Your task to perform on an android device: turn on data saver in the chrome app Image 0: 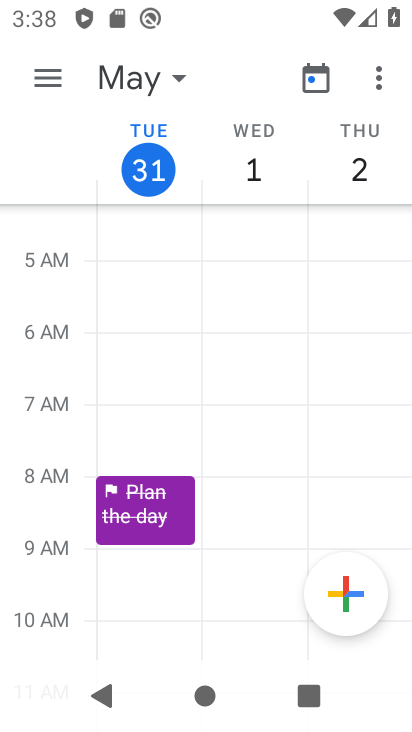
Step 0: press home button
Your task to perform on an android device: turn on data saver in the chrome app Image 1: 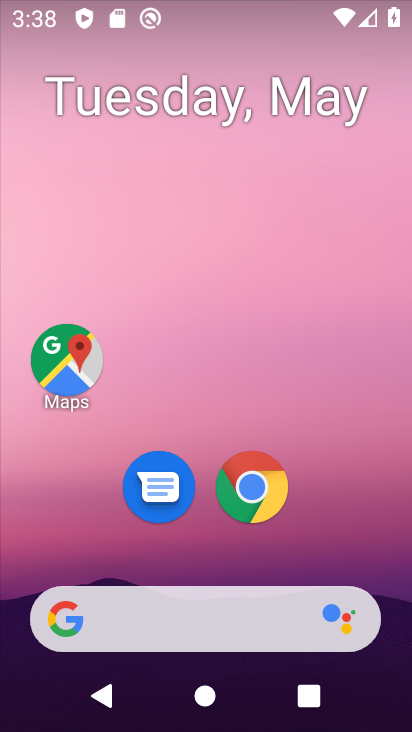
Step 1: click (261, 496)
Your task to perform on an android device: turn on data saver in the chrome app Image 2: 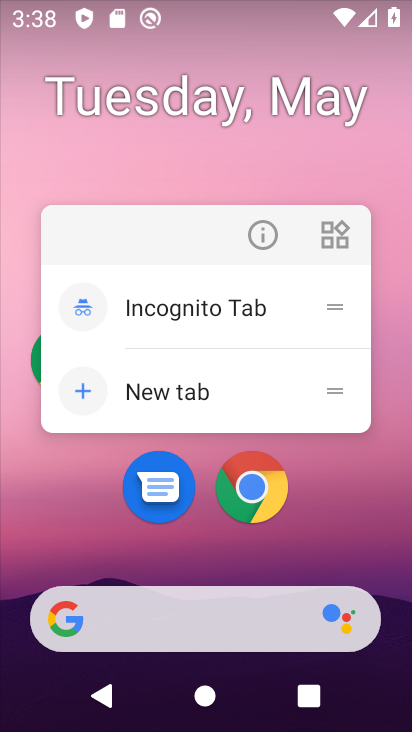
Step 2: click (266, 485)
Your task to perform on an android device: turn on data saver in the chrome app Image 3: 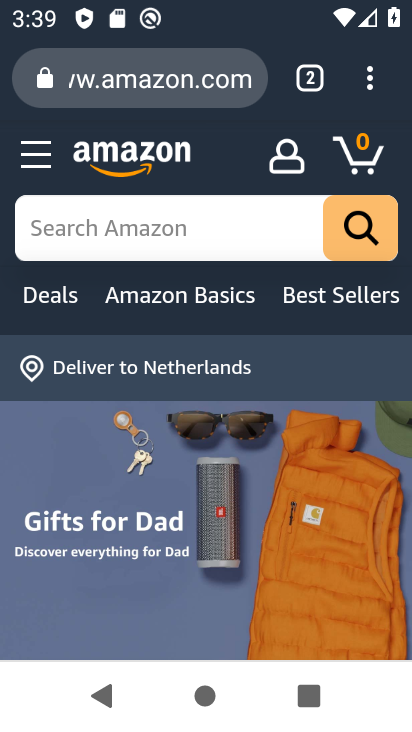
Step 3: click (368, 96)
Your task to perform on an android device: turn on data saver in the chrome app Image 4: 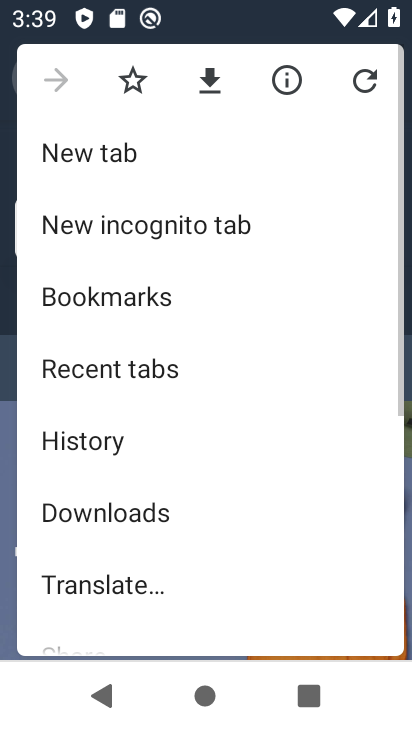
Step 4: drag from (138, 484) to (182, 343)
Your task to perform on an android device: turn on data saver in the chrome app Image 5: 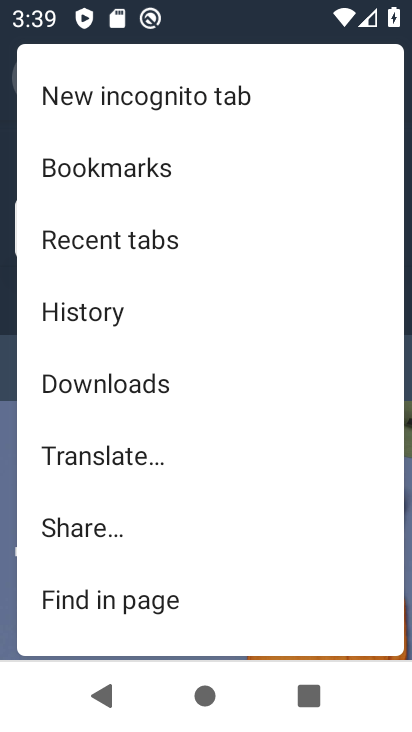
Step 5: drag from (156, 574) to (173, 394)
Your task to perform on an android device: turn on data saver in the chrome app Image 6: 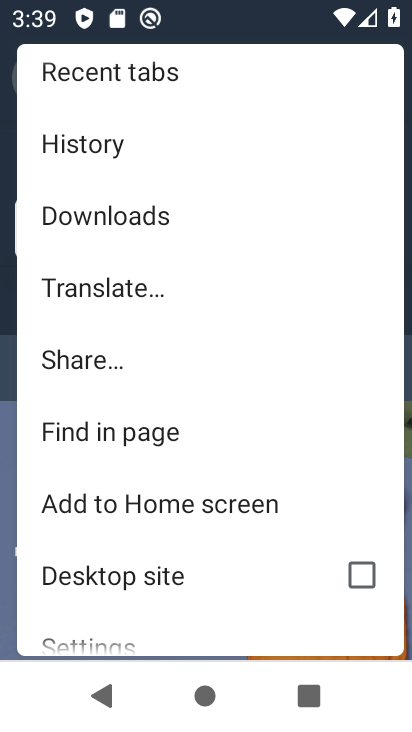
Step 6: drag from (101, 609) to (191, 239)
Your task to perform on an android device: turn on data saver in the chrome app Image 7: 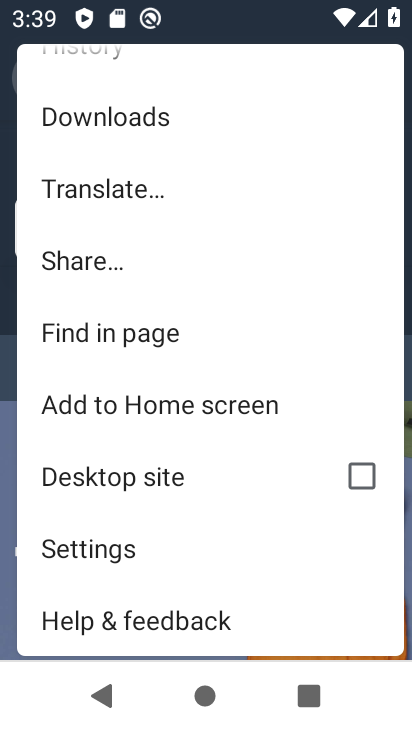
Step 7: click (112, 546)
Your task to perform on an android device: turn on data saver in the chrome app Image 8: 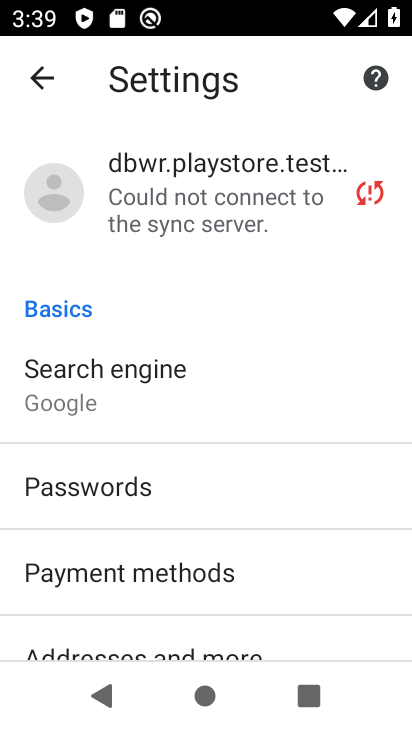
Step 8: drag from (197, 615) to (196, 312)
Your task to perform on an android device: turn on data saver in the chrome app Image 9: 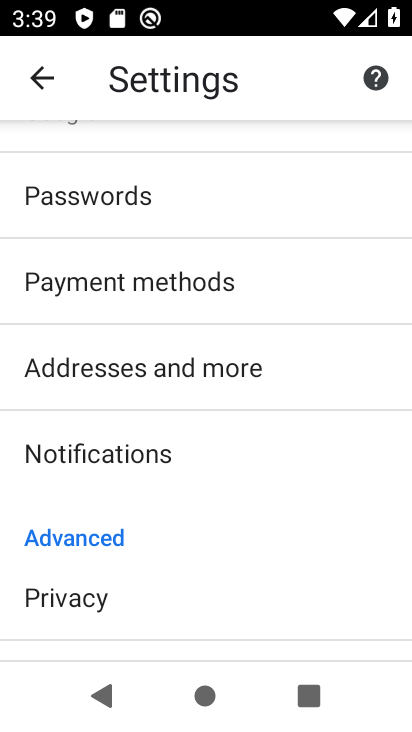
Step 9: drag from (159, 574) to (176, 262)
Your task to perform on an android device: turn on data saver in the chrome app Image 10: 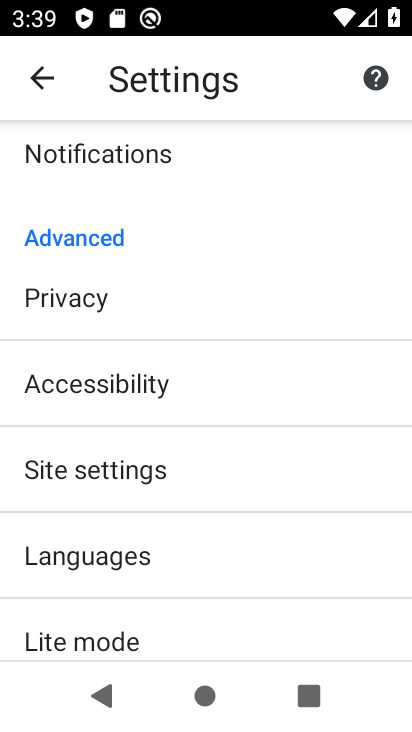
Step 10: drag from (123, 558) to (155, 372)
Your task to perform on an android device: turn on data saver in the chrome app Image 11: 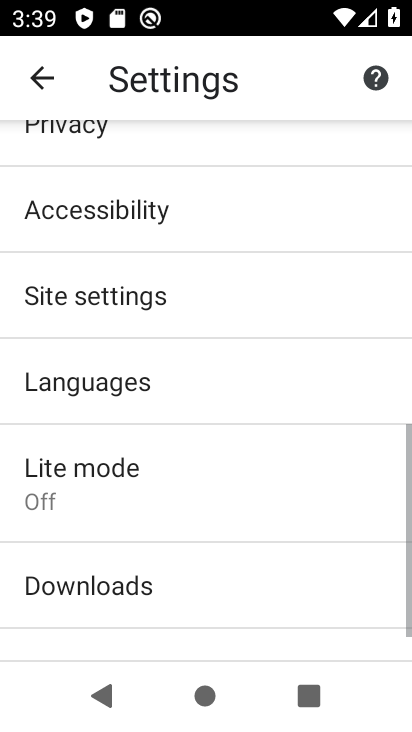
Step 11: click (108, 468)
Your task to perform on an android device: turn on data saver in the chrome app Image 12: 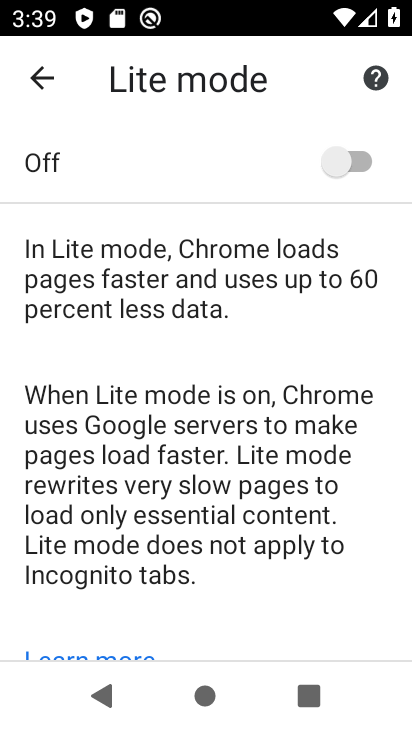
Step 12: click (375, 165)
Your task to perform on an android device: turn on data saver in the chrome app Image 13: 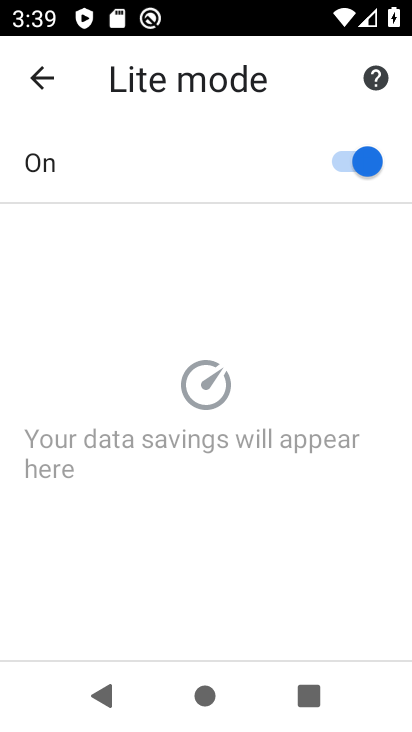
Step 13: task complete